Your task to perform on an android device: Show me recent news Image 0: 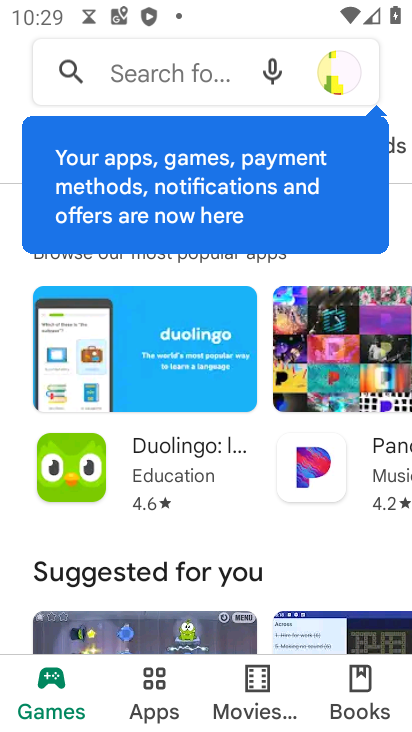
Step 0: press home button
Your task to perform on an android device: Show me recent news Image 1: 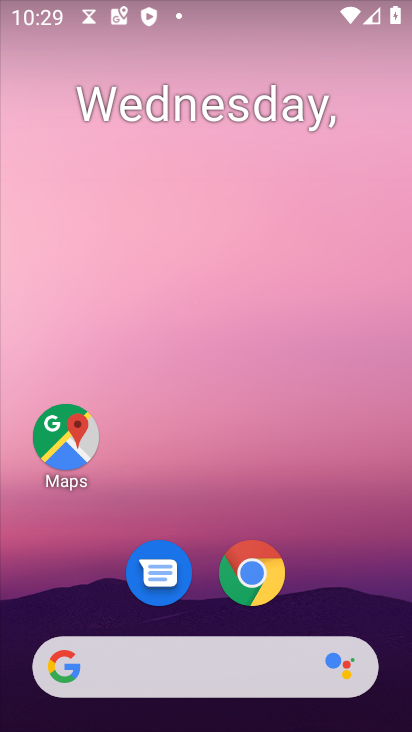
Step 1: drag from (174, 630) to (202, 201)
Your task to perform on an android device: Show me recent news Image 2: 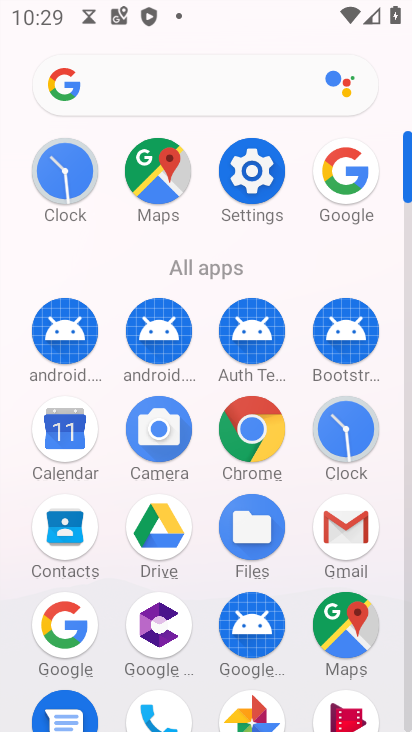
Step 2: click (60, 626)
Your task to perform on an android device: Show me recent news Image 3: 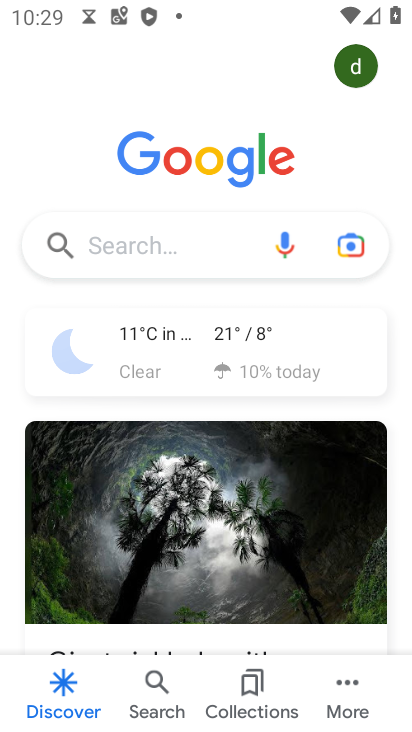
Step 3: drag from (197, 242) to (111, 238)
Your task to perform on an android device: Show me recent news Image 4: 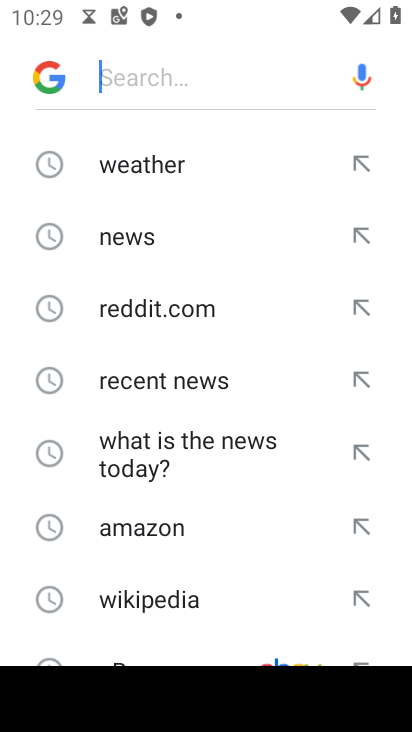
Step 4: click (171, 392)
Your task to perform on an android device: Show me recent news Image 5: 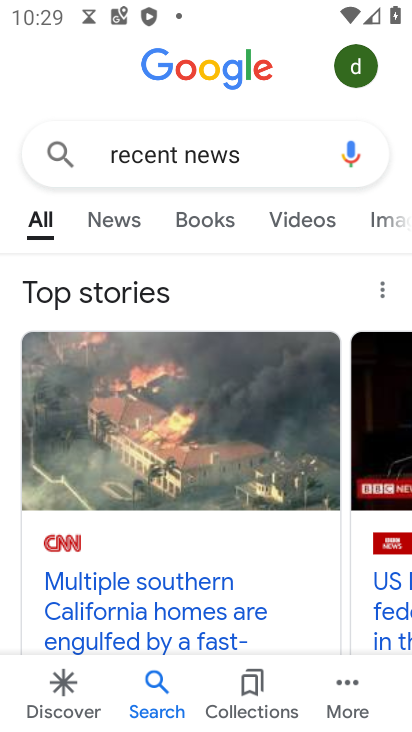
Step 5: task complete